Your task to perform on an android device: Set the phone to "Do not disturb". Image 0: 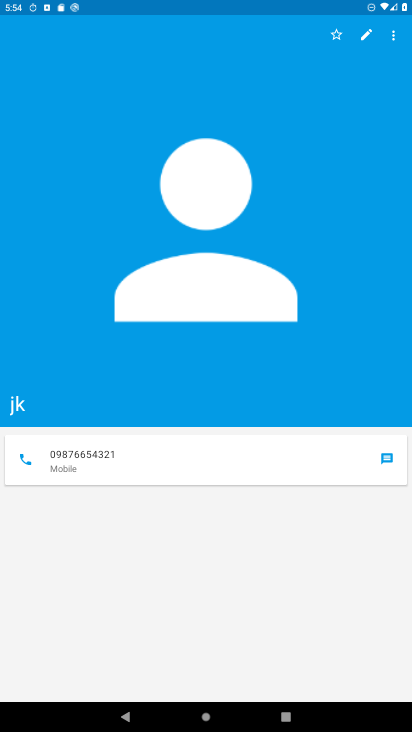
Step 0: press home button
Your task to perform on an android device: Set the phone to "Do not disturb". Image 1: 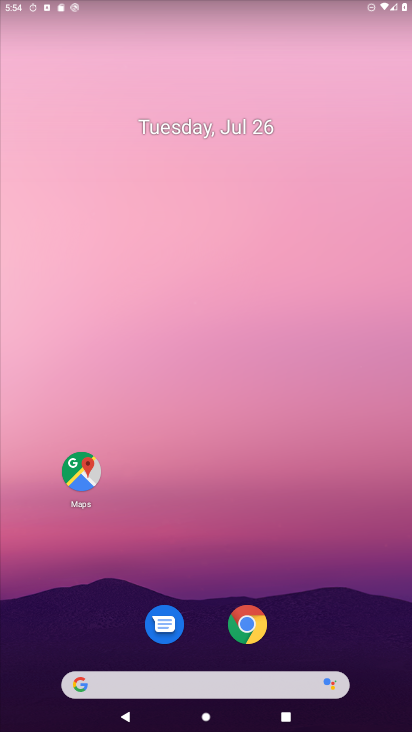
Step 1: drag from (265, 681) to (294, 126)
Your task to perform on an android device: Set the phone to "Do not disturb". Image 2: 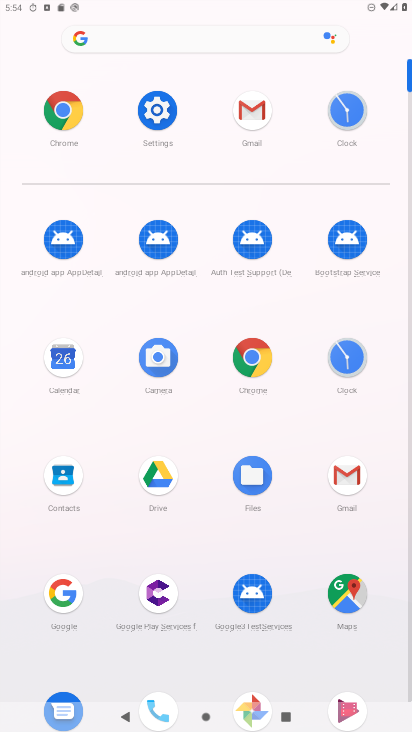
Step 2: click (146, 101)
Your task to perform on an android device: Set the phone to "Do not disturb". Image 3: 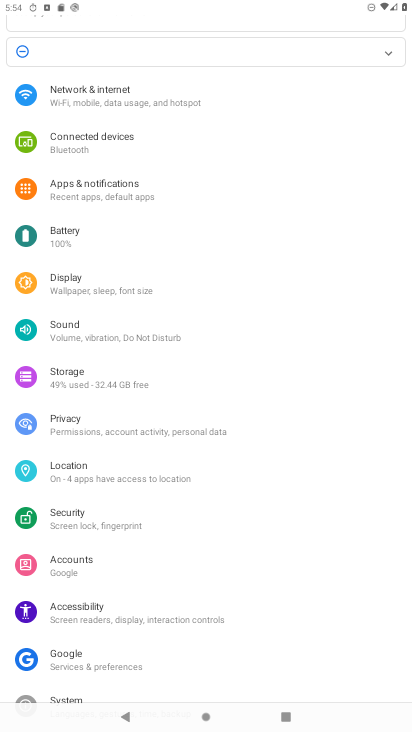
Step 3: click (90, 334)
Your task to perform on an android device: Set the phone to "Do not disturb". Image 4: 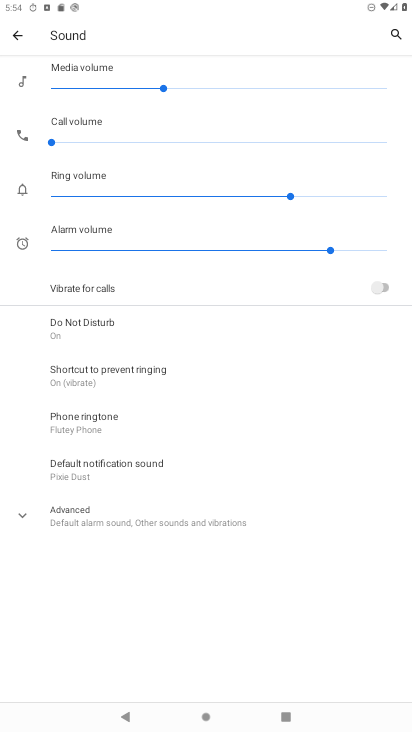
Step 4: click (105, 332)
Your task to perform on an android device: Set the phone to "Do not disturb". Image 5: 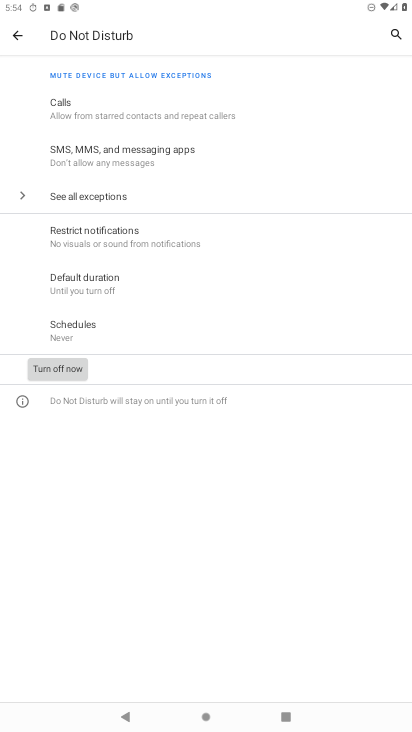
Step 5: task complete